Your task to perform on an android device: Open the Play Movies app and select the watchlist tab. Image 0: 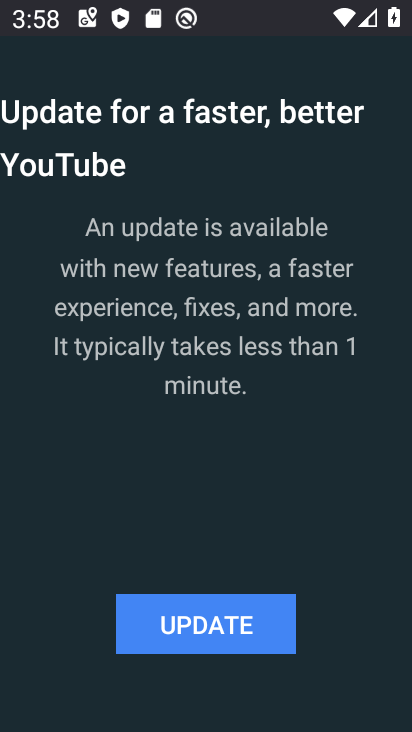
Step 0: press home button
Your task to perform on an android device: Open the Play Movies app and select the watchlist tab. Image 1: 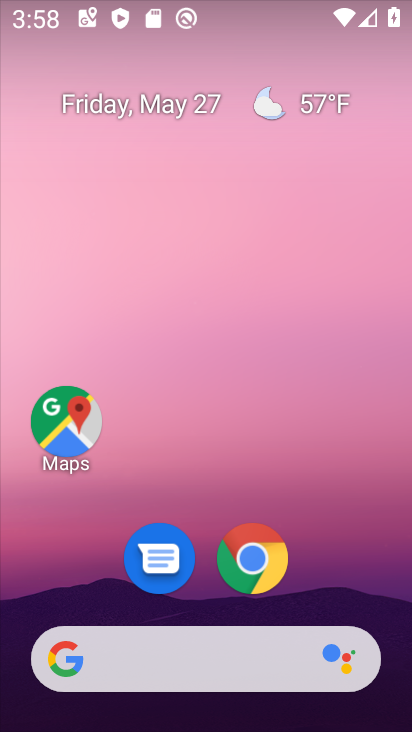
Step 1: drag from (339, 583) to (252, 146)
Your task to perform on an android device: Open the Play Movies app and select the watchlist tab. Image 2: 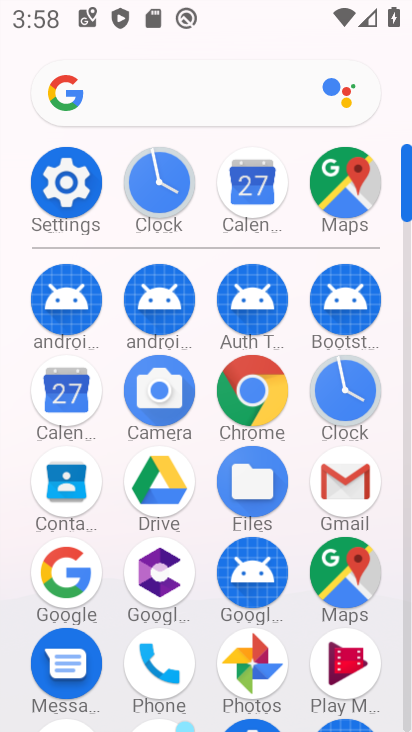
Step 2: click (405, 580)
Your task to perform on an android device: Open the Play Movies app and select the watchlist tab. Image 3: 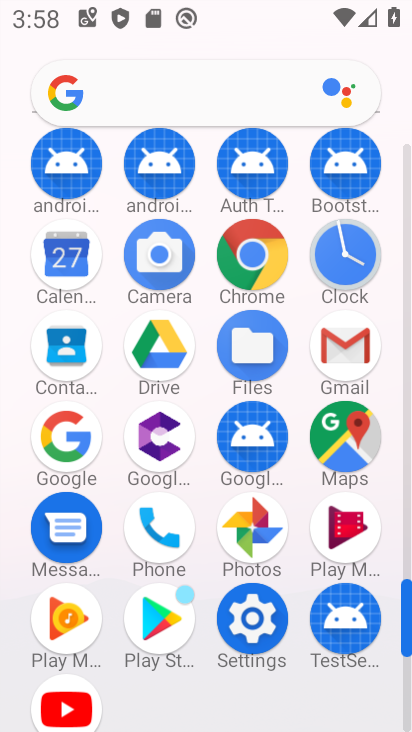
Step 3: click (358, 544)
Your task to perform on an android device: Open the Play Movies app and select the watchlist tab. Image 4: 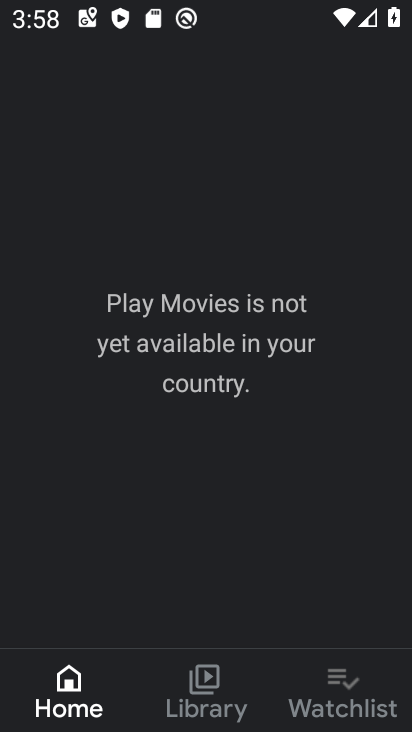
Step 4: click (352, 678)
Your task to perform on an android device: Open the Play Movies app and select the watchlist tab. Image 5: 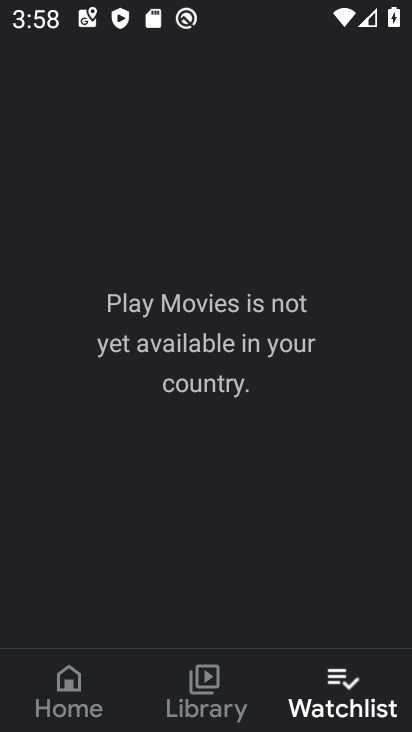
Step 5: task complete